Your task to perform on an android device: Open CNN.com Image 0: 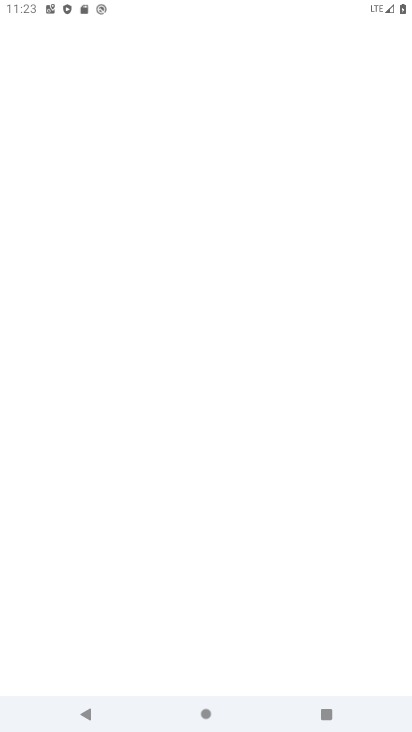
Step 0: drag from (107, 556) to (165, 53)
Your task to perform on an android device: Open CNN.com Image 1: 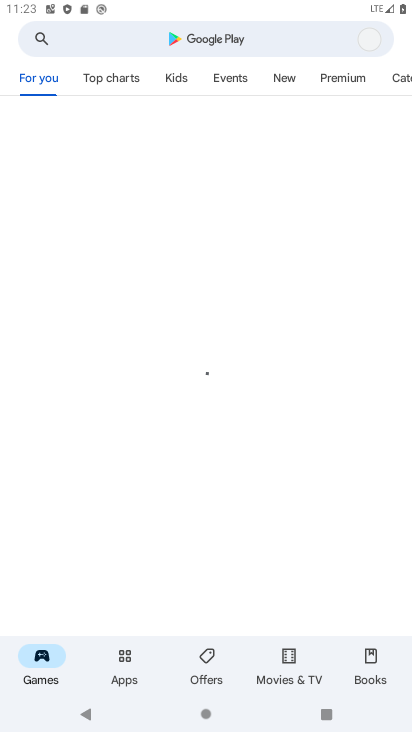
Step 1: press home button
Your task to perform on an android device: Open CNN.com Image 2: 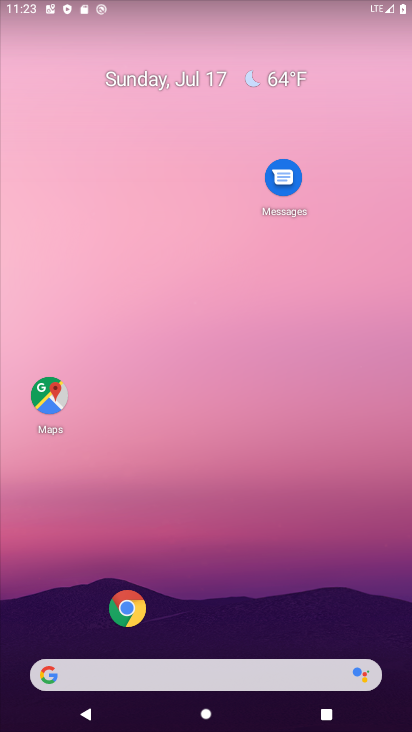
Step 2: click (98, 666)
Your task to perform on an android device: Open CNN.com Image 3: 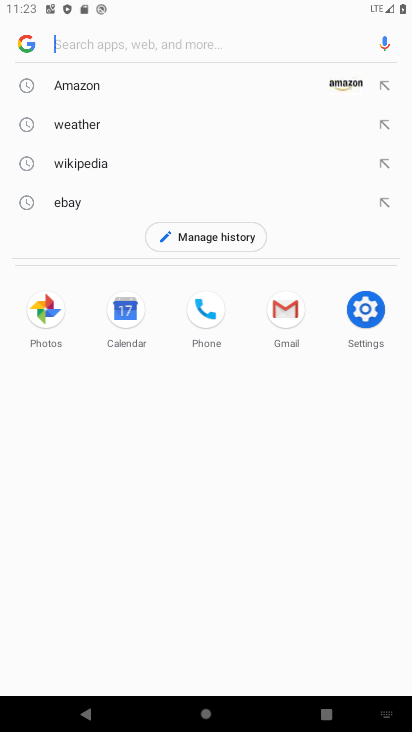
Step 3: type "CNN.com"
Your task to perform on an android device: Open CNN.com Image 4: 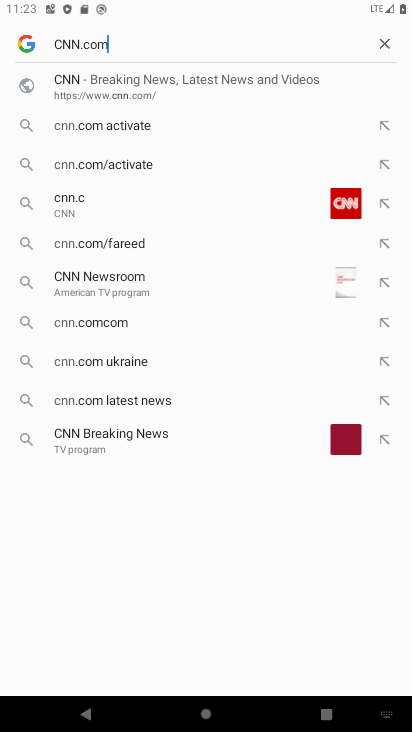
Step 4: type ""
Your task to perform on an android device: Open CNN.com Image 5: 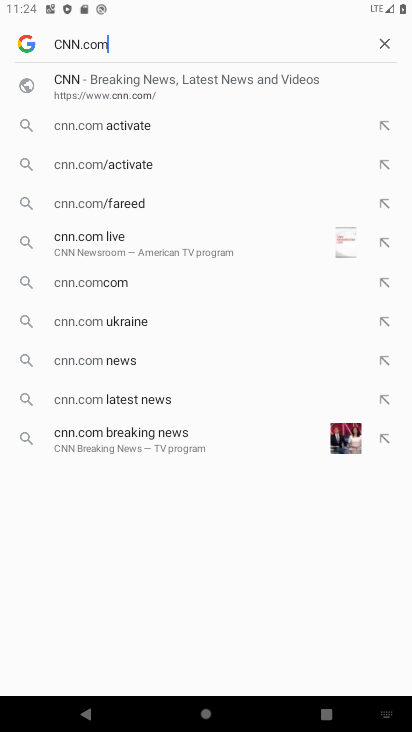
Step 5: type ""
Your task to perform on an android device: Open CNN.com Image 6: 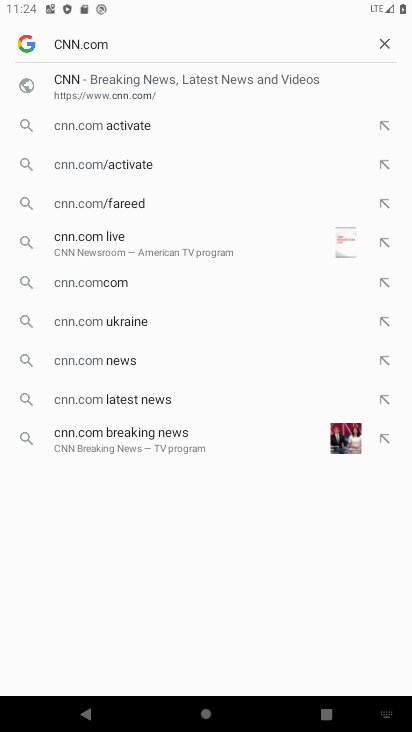
Step 6: type ""
Your task to perform on an android device: Open CNN.com Image 7: 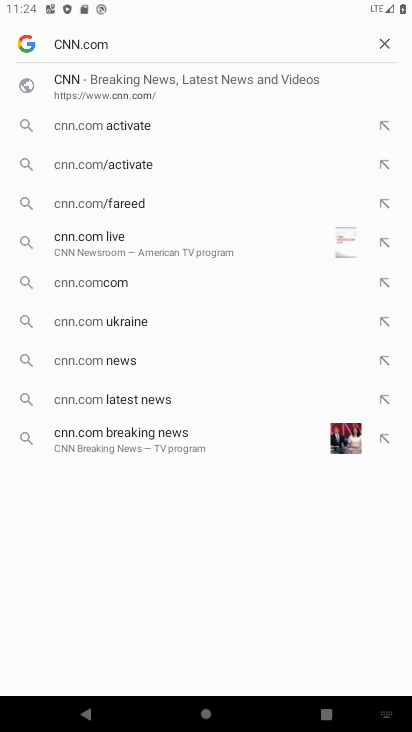
Step 7: type ""
Your task to perform on an android device: Open CNN.com Image 8: 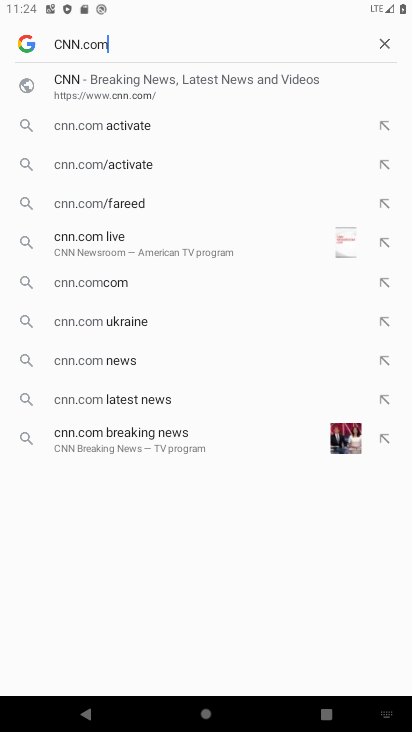
Step 8: task complete